Your task to perform on an android device: Open Youtube and go to the subscriptions tab Image 0: 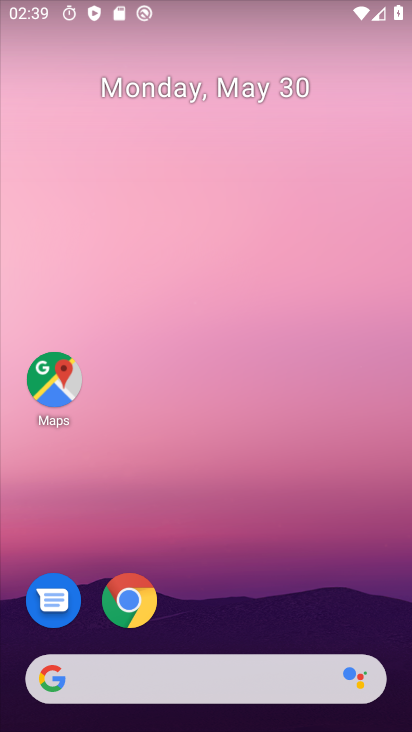
Step 0: drag from (227, 605) to (224, 45)
Your task to perform on an android device: Open Youtube and go to the subscriptions tab Image 1: 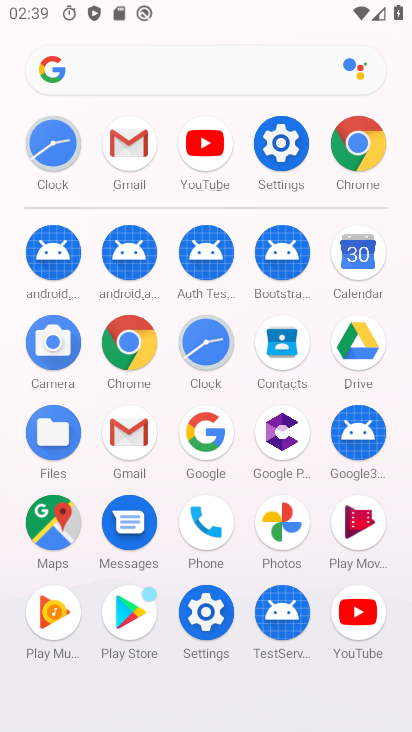
Step 1: click (359, 621)
Your task to perform on an android device: Open Youtube and go to the subscriptions tab Image 2: 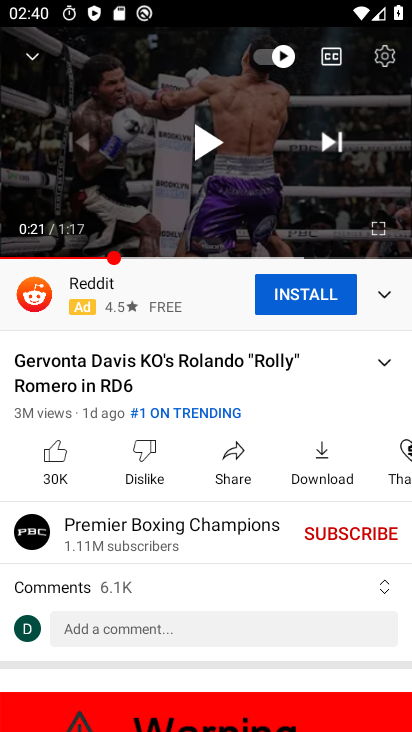
Step 2: press back button
Your task to perform on an android device: Open Youtube and go to the subscriptions tab Image 3: 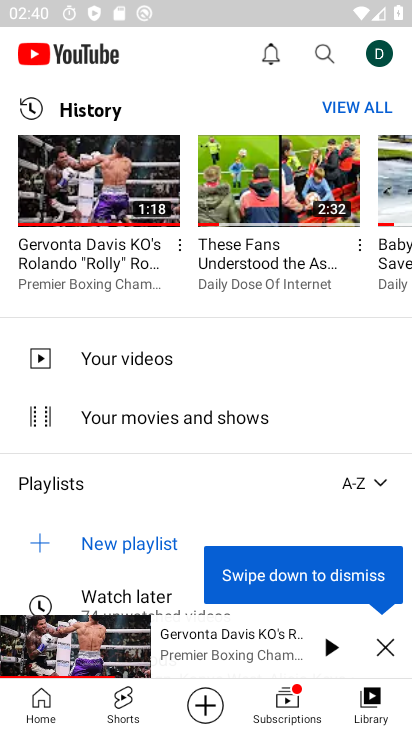
Step 3: click (382, 645)
Your task to perform on an android device: Open Youtube and go to the subscriptions tab Image 4: 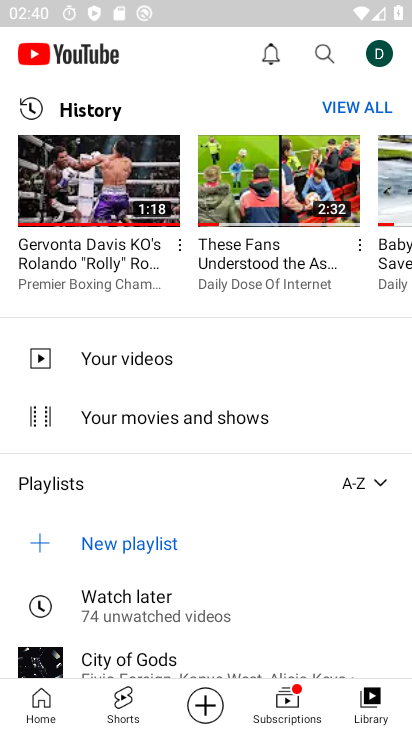
Step 4: click (294, 700)
Your task to perform on an android device: Open Youtube and go to the subscriptions tab Image 5: 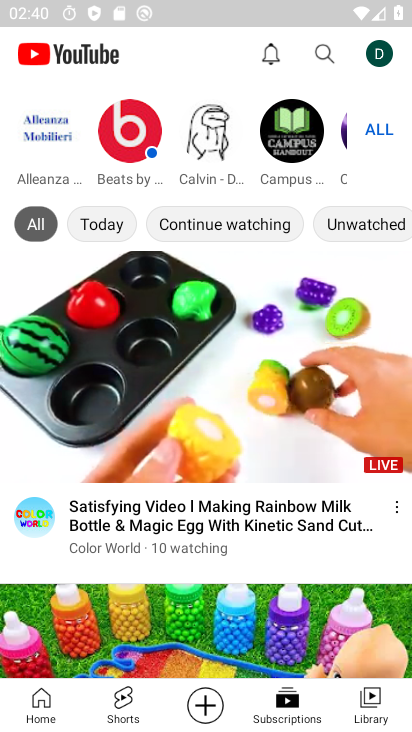
Step 5: task complete